Your task to perform on an android device: toggle improve location accuracy Image 0: 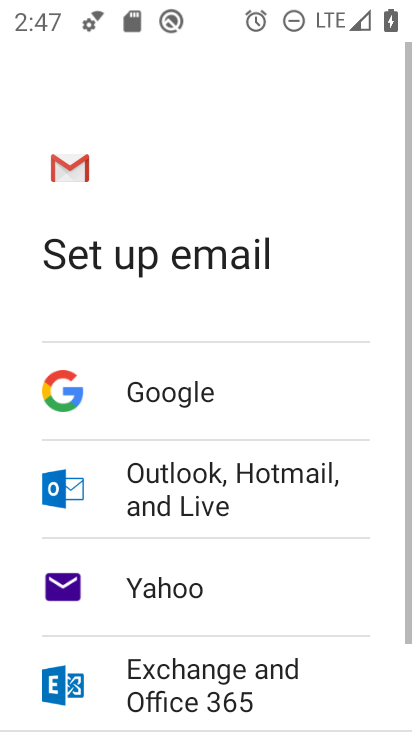
Step 0: press home button
Your task to perform on an android device: toggle improve location accuracy Image 1: 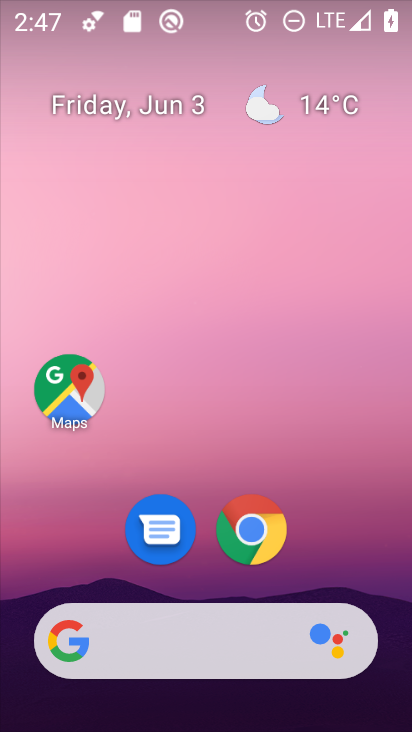
Step 1: drag from (381, 590) to (364, 221)
Your task to perform on an android device: toggle improve location accuracy Image 2: 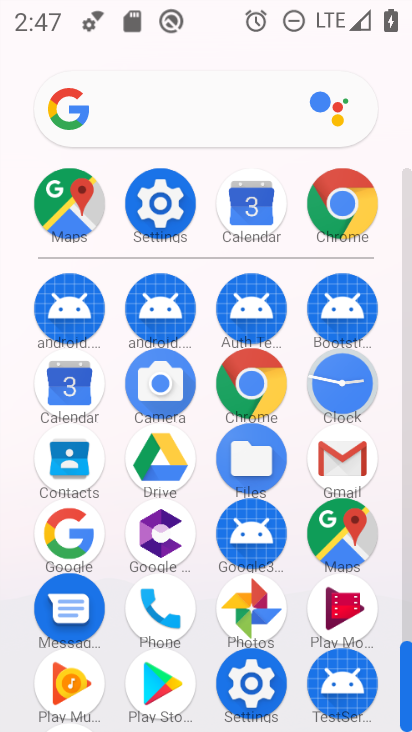
Step 2: click (174, 219)
Your task to perform on an android device: toggle improve location accuracy Image 3: 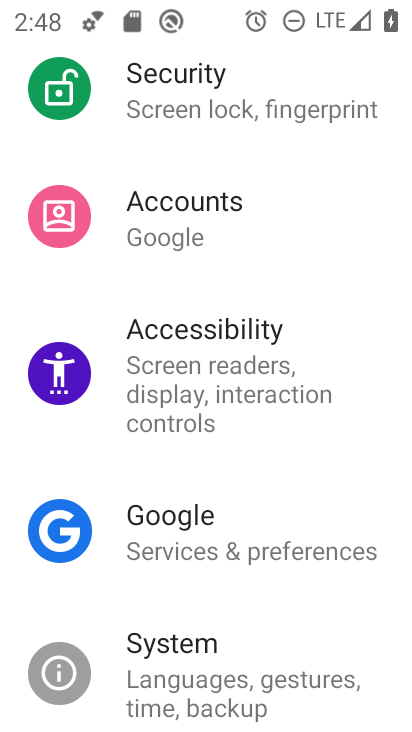
Step 3: drag from (365, 284) to (367, 363)
Your task to perform on an android device: toggle improve location accuracy Image 4: 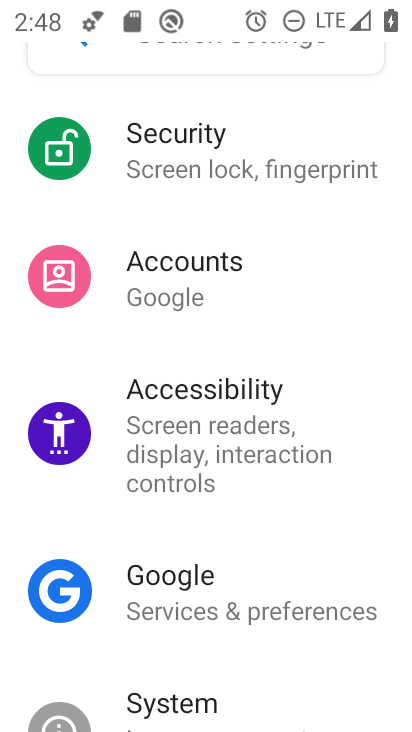
Step 4: drag from (366, 234) to (374, 347)
Your task to perform on an android device: toggle improve location accuracy Image 5: 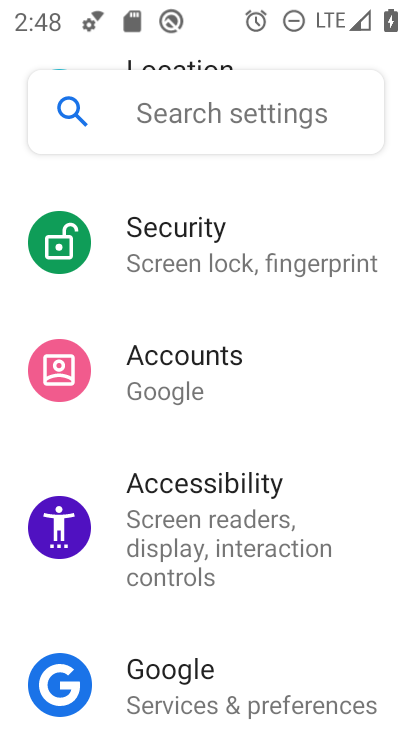
Step 5: drag from (391, 197) to (380, 316)
Your task to perform on an android device: toggle improve location accuracy Image 6: 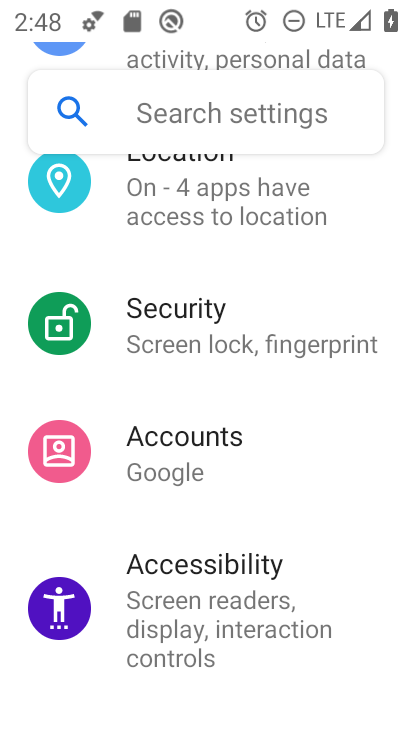
Step 6: drag from (367, 214) to (355, 335)
Your task to perform on an android device: toggle improve location accuracy Image 7: 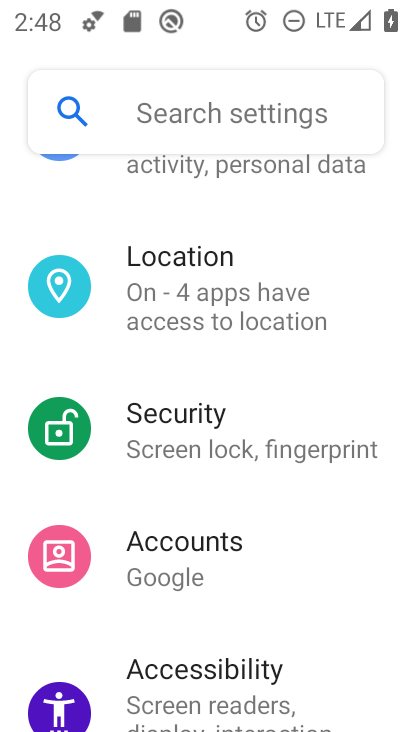
Step 7: drag from (370, 212) to (351, 399)
Your task to perform on an android device: toggle improve location accuracy Image 8: 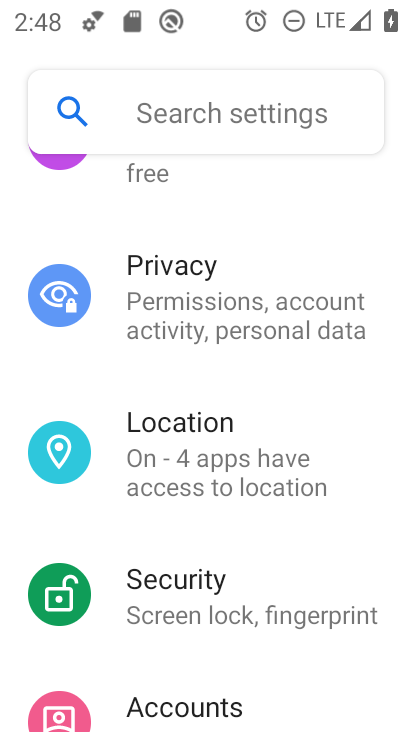
Step 8: drag from (348, 235) to (349, 350)
Your task to perform on an android device: toggle improve location accuracy Image 9: 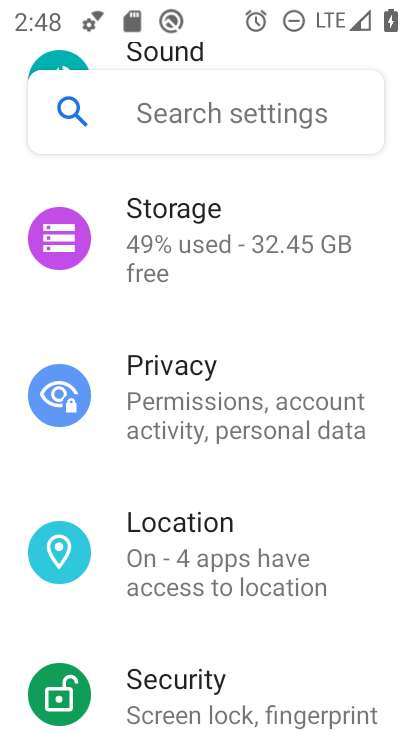
Step 9: drag from (367, 210) to (378, 360)
Your task to perform on an android device: toggle improve location accuracy Image 10: 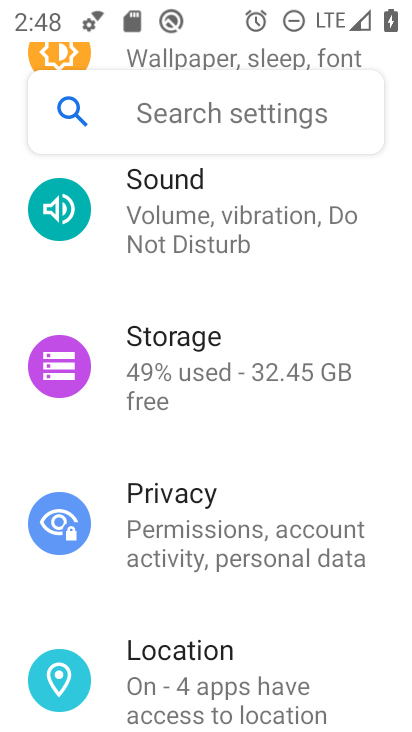
Step 10: drag from (365, 237) to (370, 377)
Your task to perform on an android device: toggle improve location accuracy Image 11: 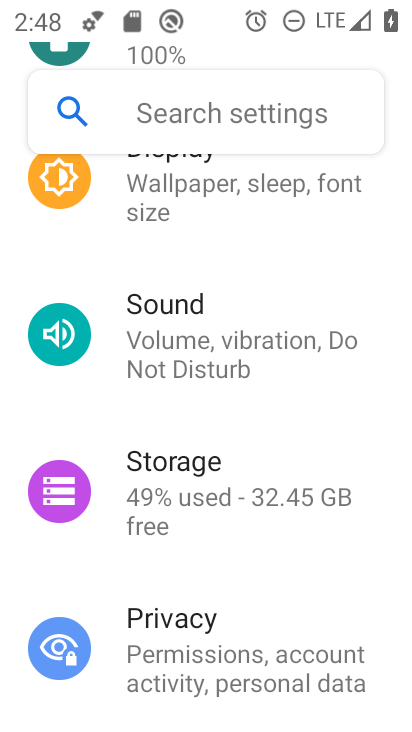
Step 11: drag from (356, 245) to (355, 386)
Your task to perform on an android device: toggle improve location accuracy Image 12: 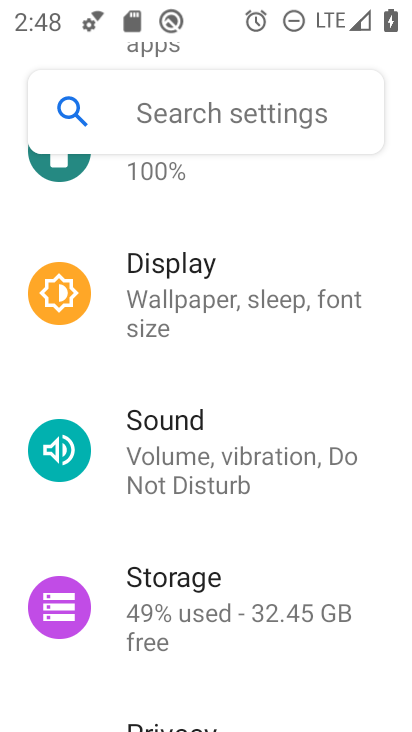
Step 12: drag from (352, 229) to (375, 342)
Your task to perform on an android device: toggle improve location accuracy Image 13: 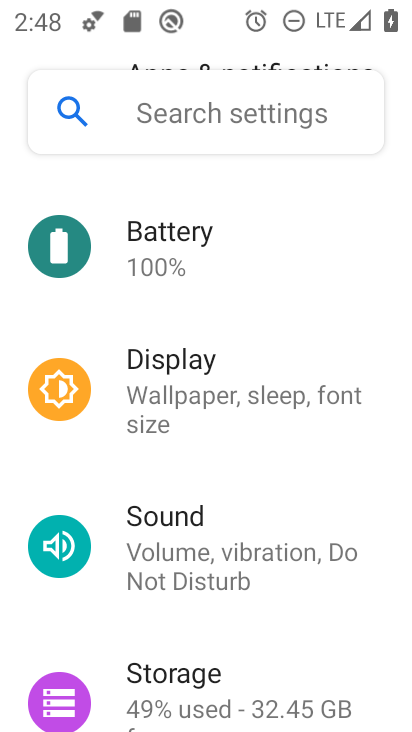
Step 13: drag from (366, 274) to (369, 406)
Your task to perform on an android device: toggle improve location accuracy Image 14: 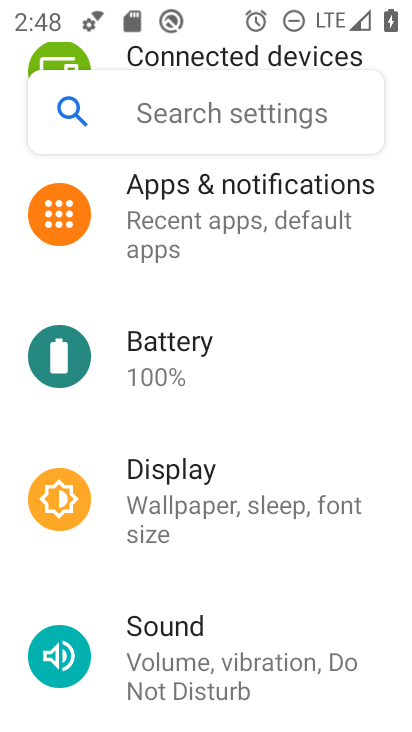
Step 14: drag from (363, 272) to (365, 399)
Your task to perform on an android device: toggle improve location accuracy Image 15: 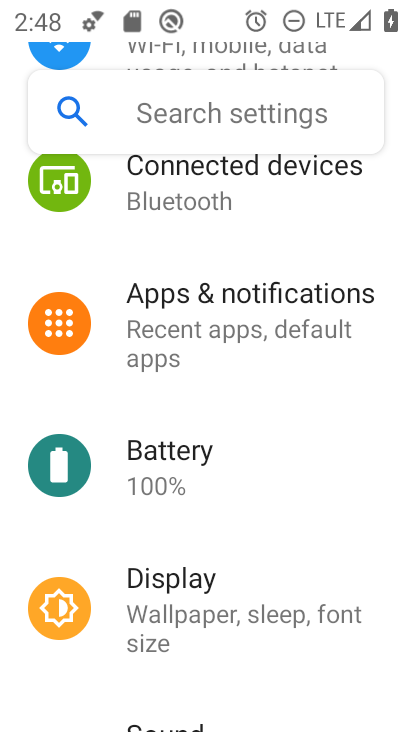
Step 15: drag from (377, 240) to (371, 427)
Your task to perform on an android device: toggle improve location accuracy Image 16: 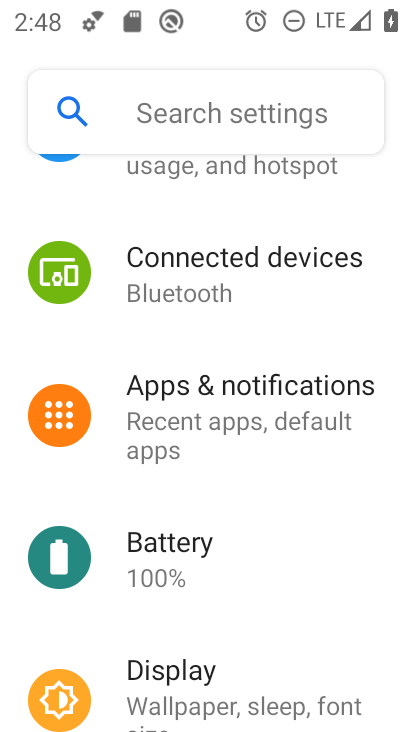
Step 16: drag from (380, 278) to (386, 401)
Your task to perform on an android device: toggle improve location accuracy Image 17: 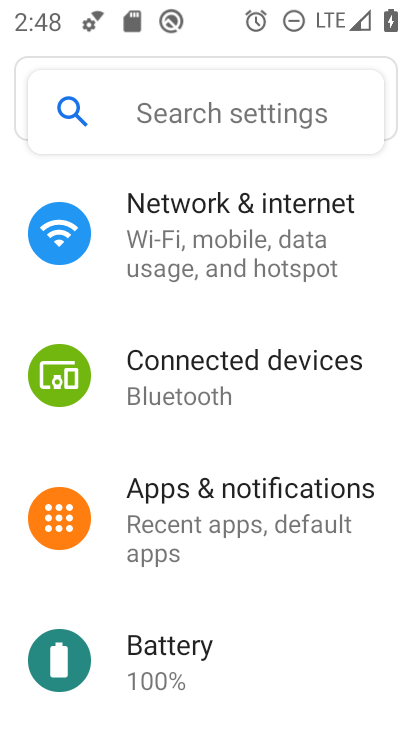
Step 17: drag from (362, 417) to (362, 289)
Your task to perform on an android device: toggle improve location accuracy Image 18: 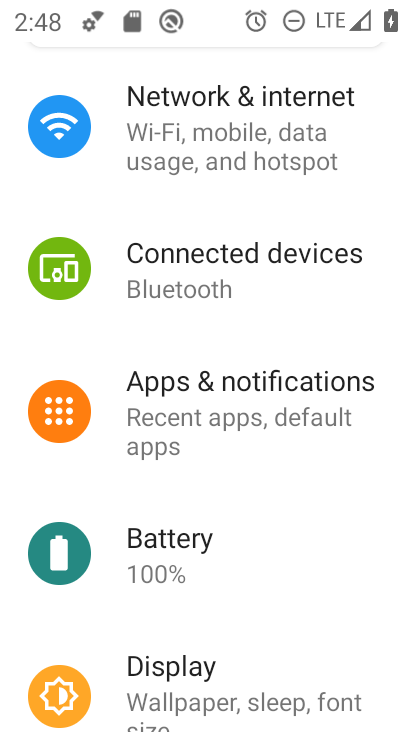
Step 18: drag from (349, 460) to (353, 324)
Your task to perform on an android device: toggle improve location accuracy Image 19: 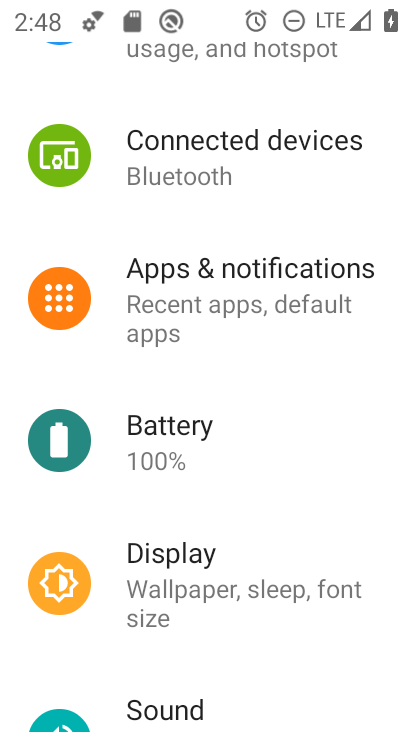
Step 19: drag from (337, 457) to (322, 334)
Your task to perform on an android device: toggle improve location accuracy Image 20: 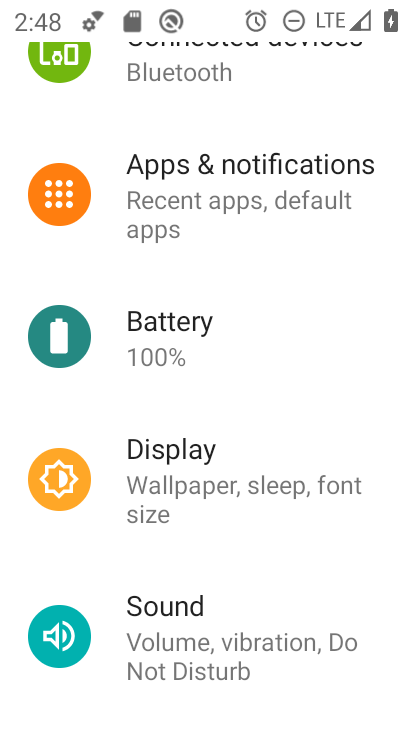
Step 20: drag from (324, 541) to (319, 387)
Your task to perform on an android device: toggle improve location accuracy Image 21: 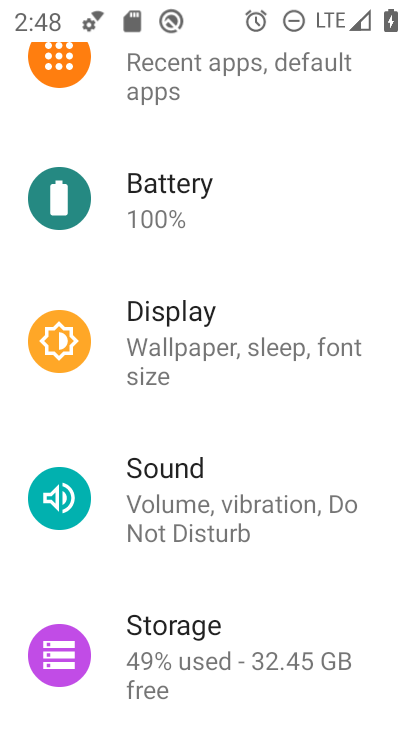
Step 21: drag from (348, 550) to (337, 418)
Your task to perform on an android device: toggle improve location accuracy Image 22: 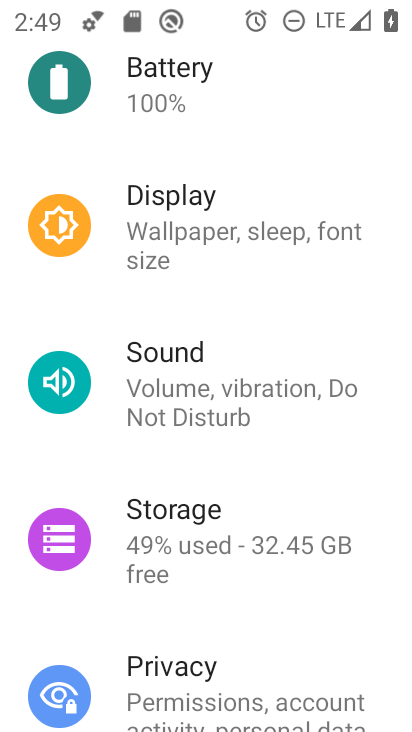
Step 22: drag from (350, 584) to (348, 466)
Your task to perform on an android device: toggle improve location accuracy Image 23: 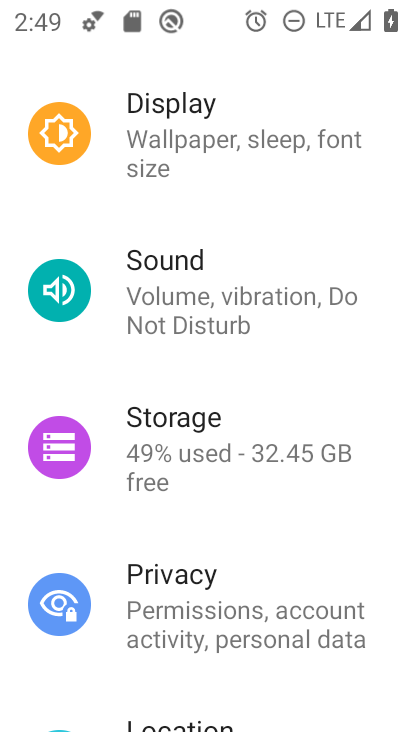
Step 23: drag from (332, 668) to (338, 500)
Your task to perform on an android device: toggle improve location accuracy Image 24: 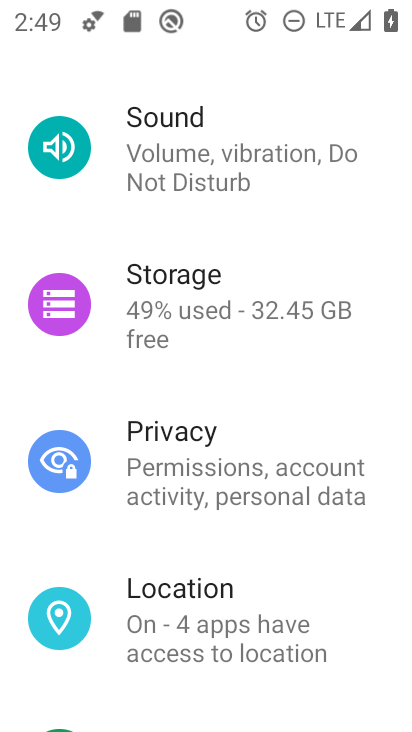
Step 24: drag from (340, 598) to (347, 453)
Your task to perform on an android device: toggle improve location accuracy Image 25: 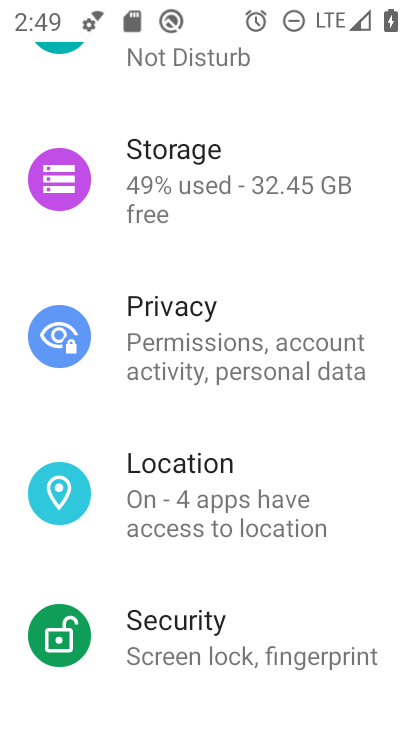
Step 25: drag from (350, 577) to (340, 470)
Your task to perform on an android device: toggle improve location accuracy Image 26: 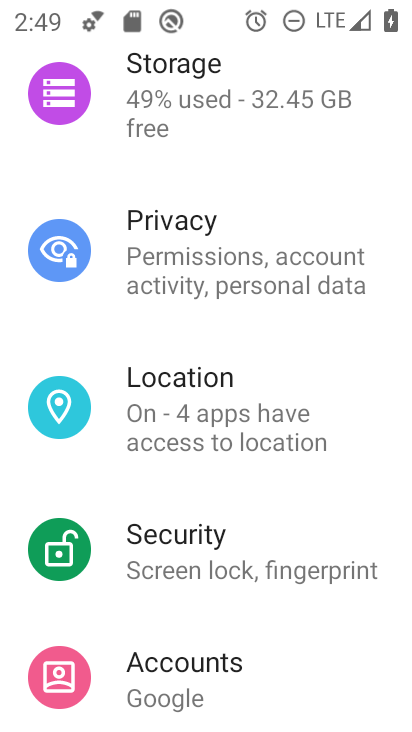
Step 26: click (272, 428)
Your task to perform on an android device: toggle improve location accuracy Image 27: 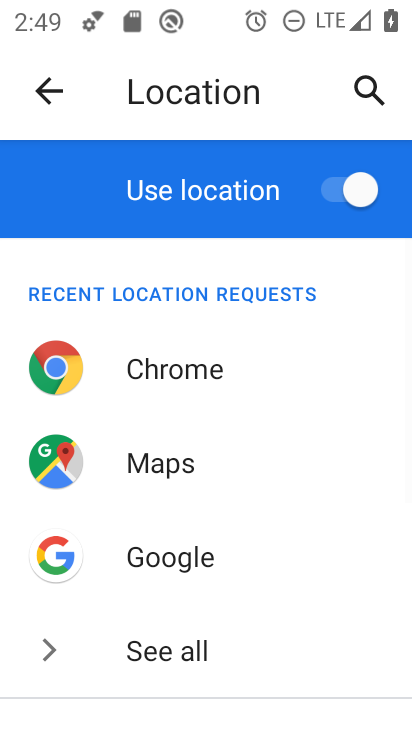
Step 27: drag from (308, 601) to (321, 448)
Your task to perform on an android device: toggle improve location accuracy Image 28: 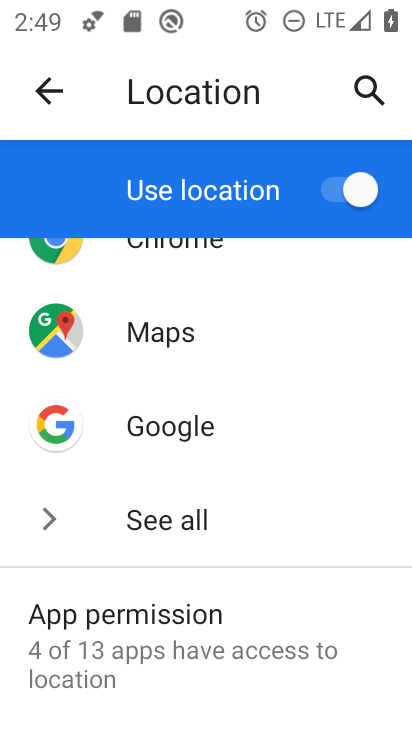
Step 28: drag from (331, 612) to (329, 488)
Your task to perform on an android device: toggle improve location accuracy Image 29: 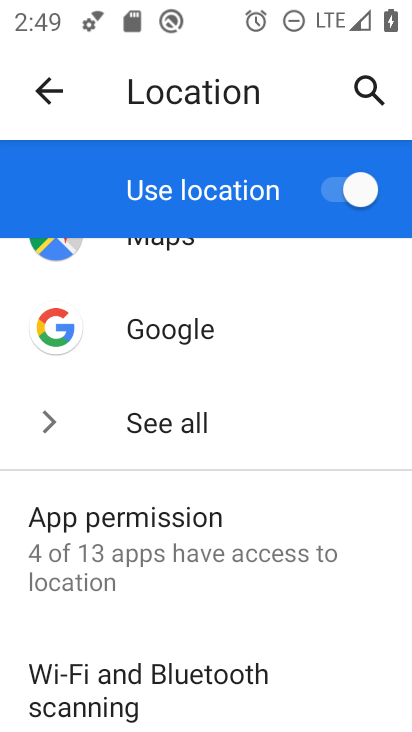
Step 29: drag from (330, 626) to (334, 474)
Your task to perform on an android device: toggle improve location accuracy Image 30: 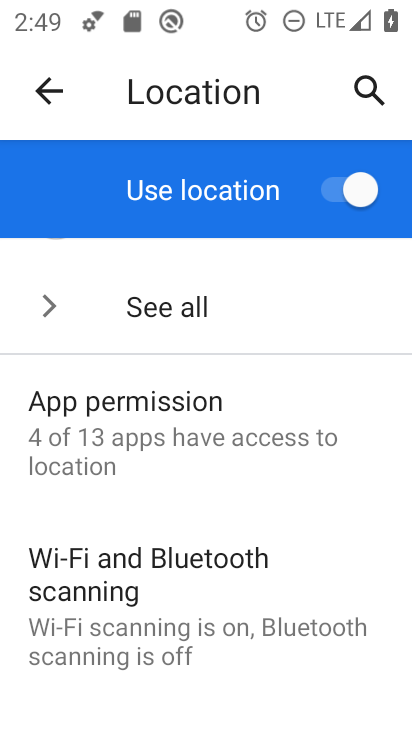
Step 30: drag from (319, 644) to (317, 490)
Your task to perform on an android device: toggle improve location accuracy Image 31: 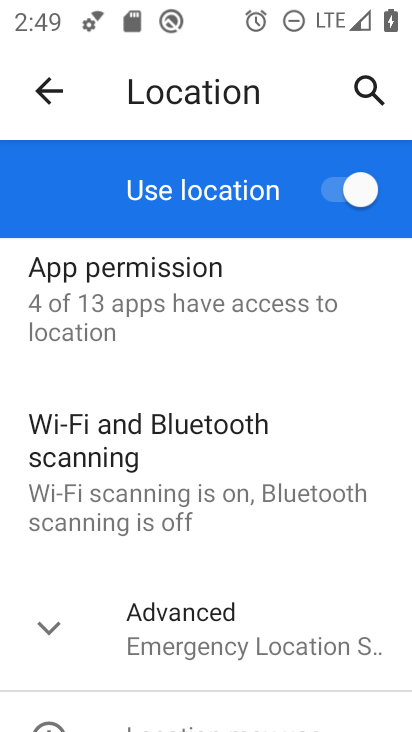
Step 31: drag from (318, 598) to (309, 445)
Your task to perform on an android device: toggle improve location accuracy Image 32: 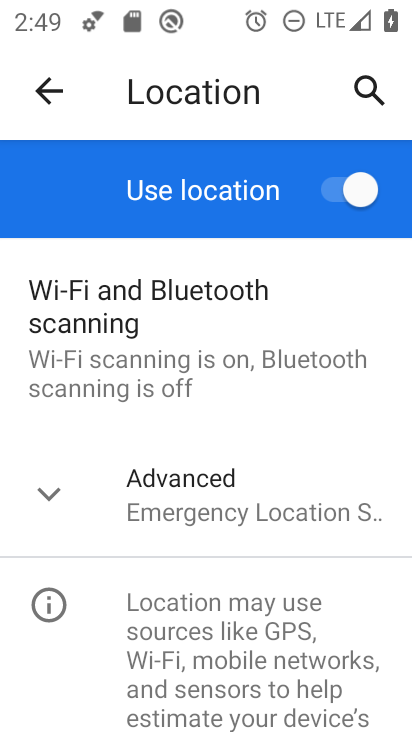
Step 32: click (265, 513)
Your task to perform on an android device: toggle improve location accuracy Image 33: 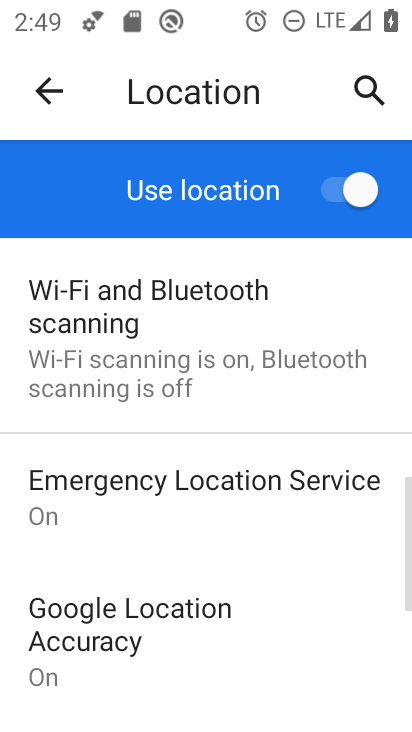
Step 33: drag from (286, 612) to (286, 460)
Your task to perform on an android device: toggle improve location accuracy Image 34: 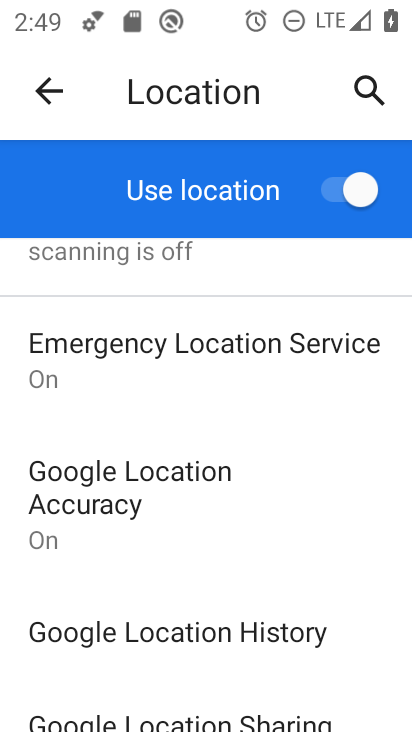
Step 34: drag from (267, 617) to (272, 469)
Your task to perform on an android device: toggle improve location accuracy Image 35: 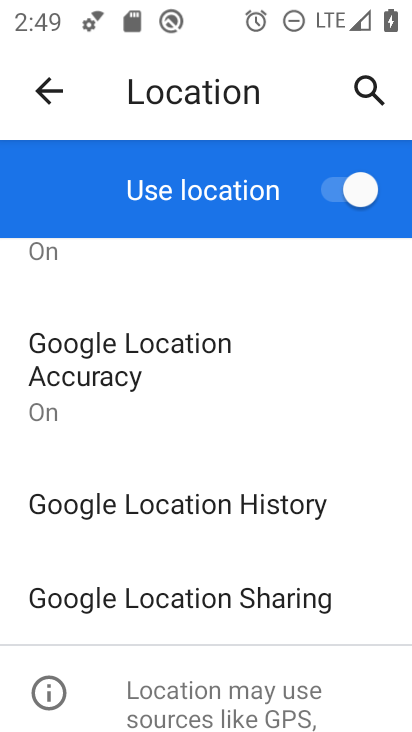
Step 35: click (149, 393)
Your task to perform on an android device: toggle improve location accuracy Image 36: 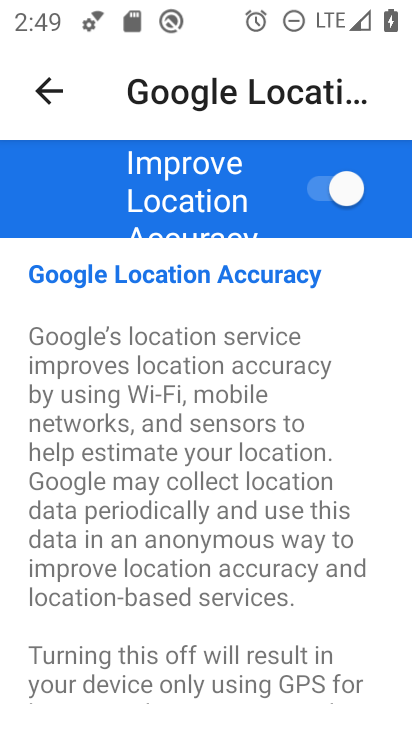
Step 36: click (345, 190)
Your task to perform on an android device: toggle improve location accuracy Image 37: 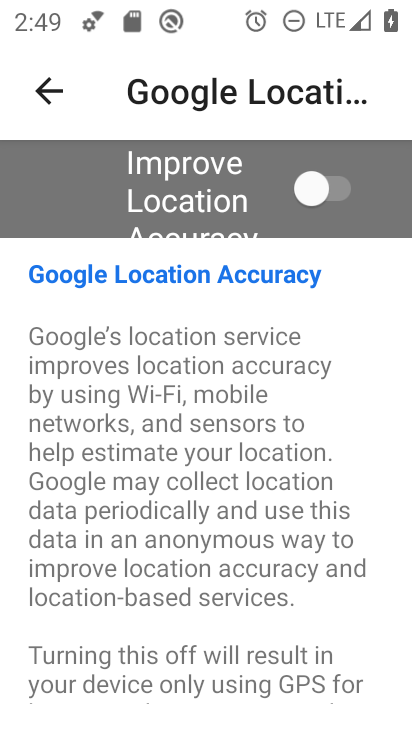
Step 37: task complete